Your task to perform on an android device: Check out the new nike air max 2020. Image 0: 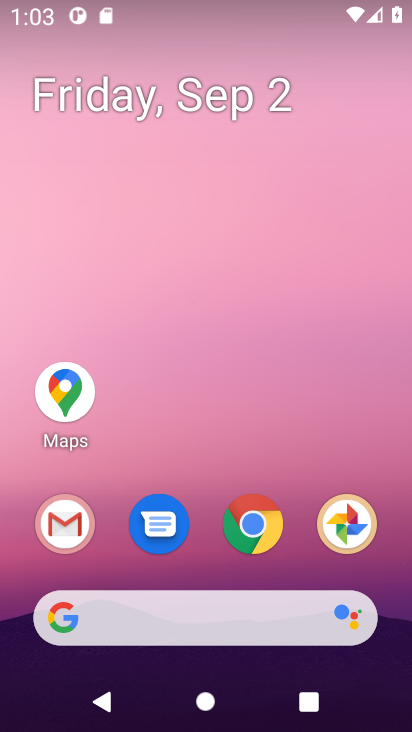
Step 0: click (268, 609)
Your task to perform on an android device: Check out the new nike air max 2020. Image 1: 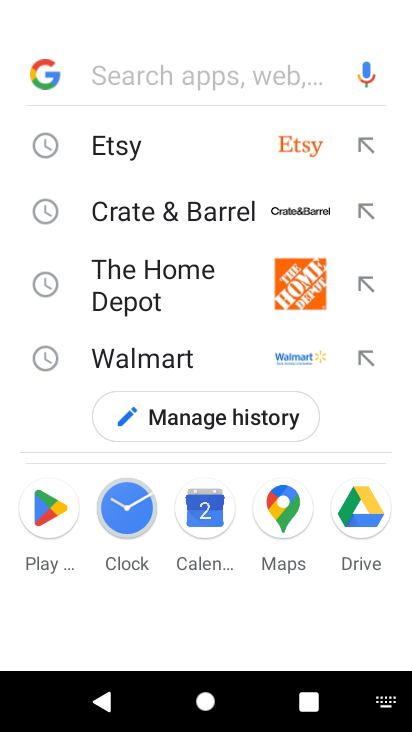
Step 1: press enter
Your task to perform on an android device: Check out the new nike air max 2020. Image 2: 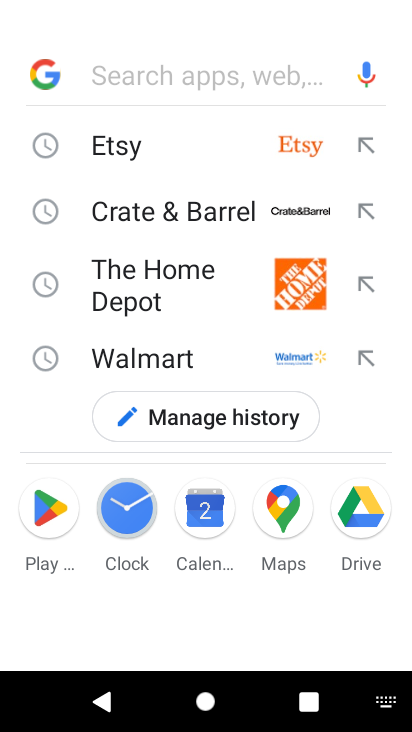
Step 2: type "nike air max 2020"
Your task to perform on an android device: Check out the new nike air max 2020. Image 3: 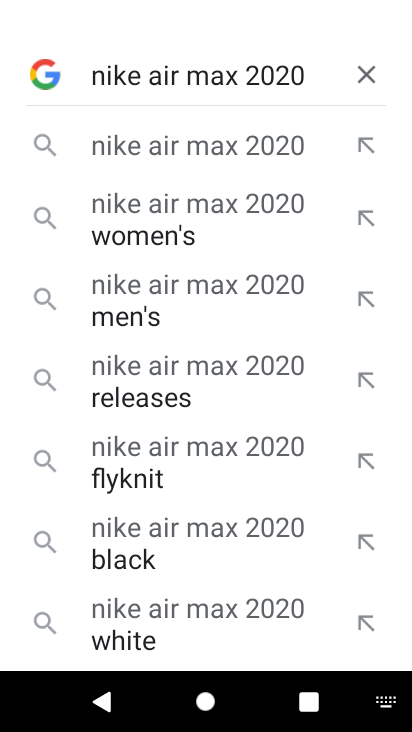
Step 3: click (267, 147)
Your task to perform on an android device: Check out the new nike air max 2020. Image 4: 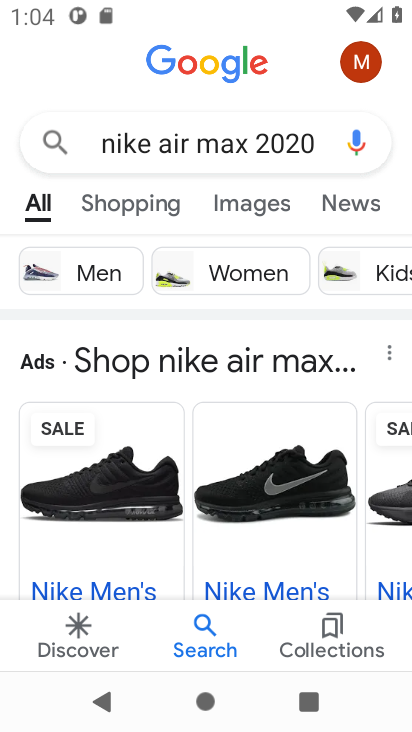
Step 4: task complete